Your task to perform on an android device: Go to location settings Image 0: 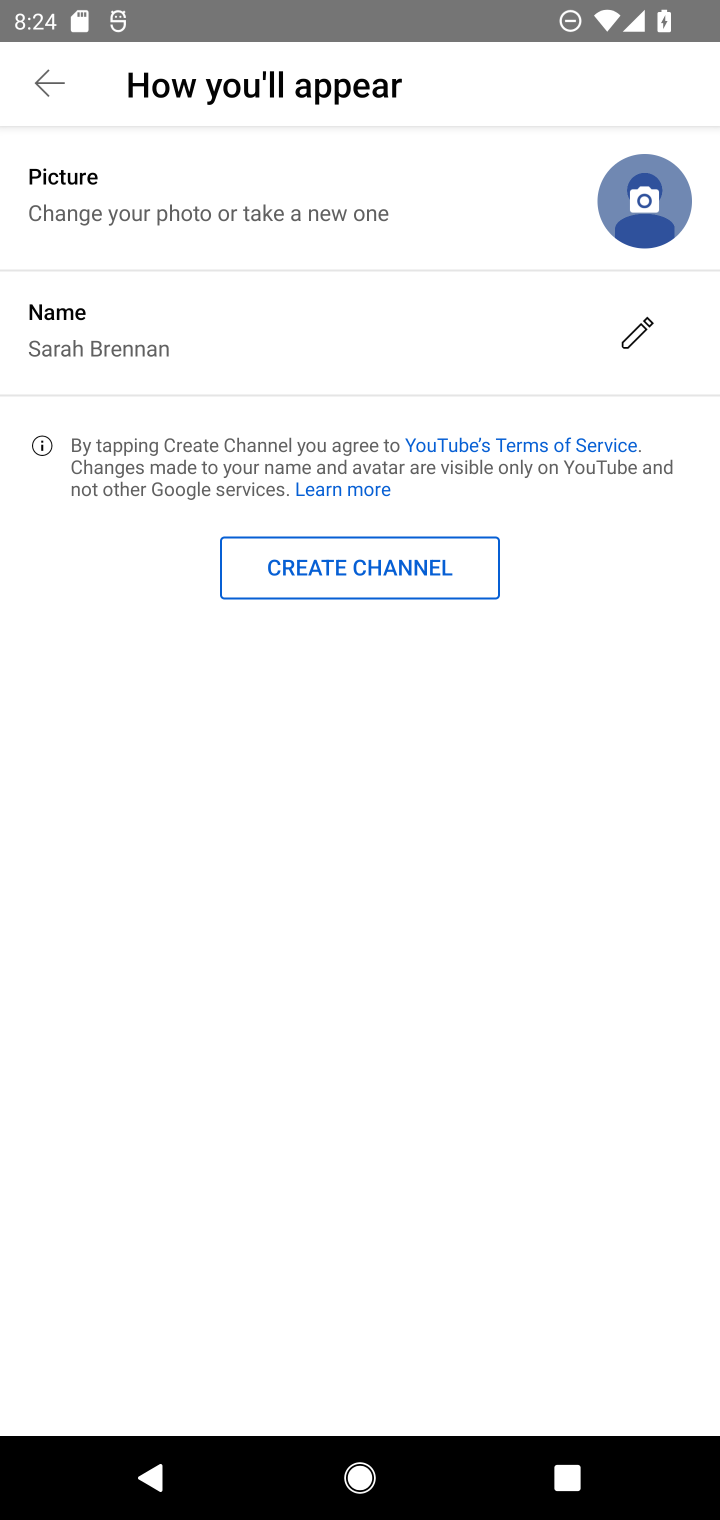
Step 0: press home button
Your task to perform on an android device: Go to location settings Image 1: 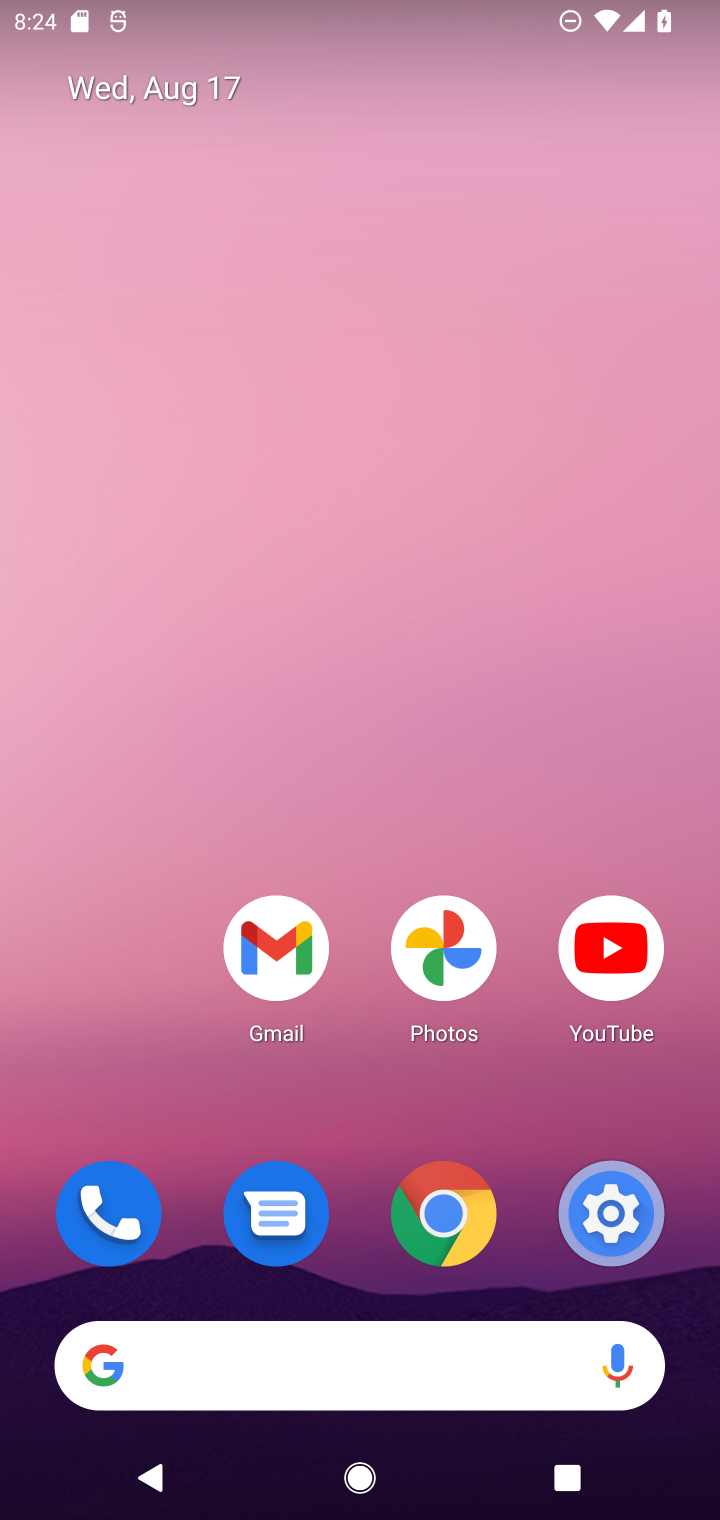
Step 1: click (632, 1237)
Your task to perform on an android device: Go to location settings Image 2: 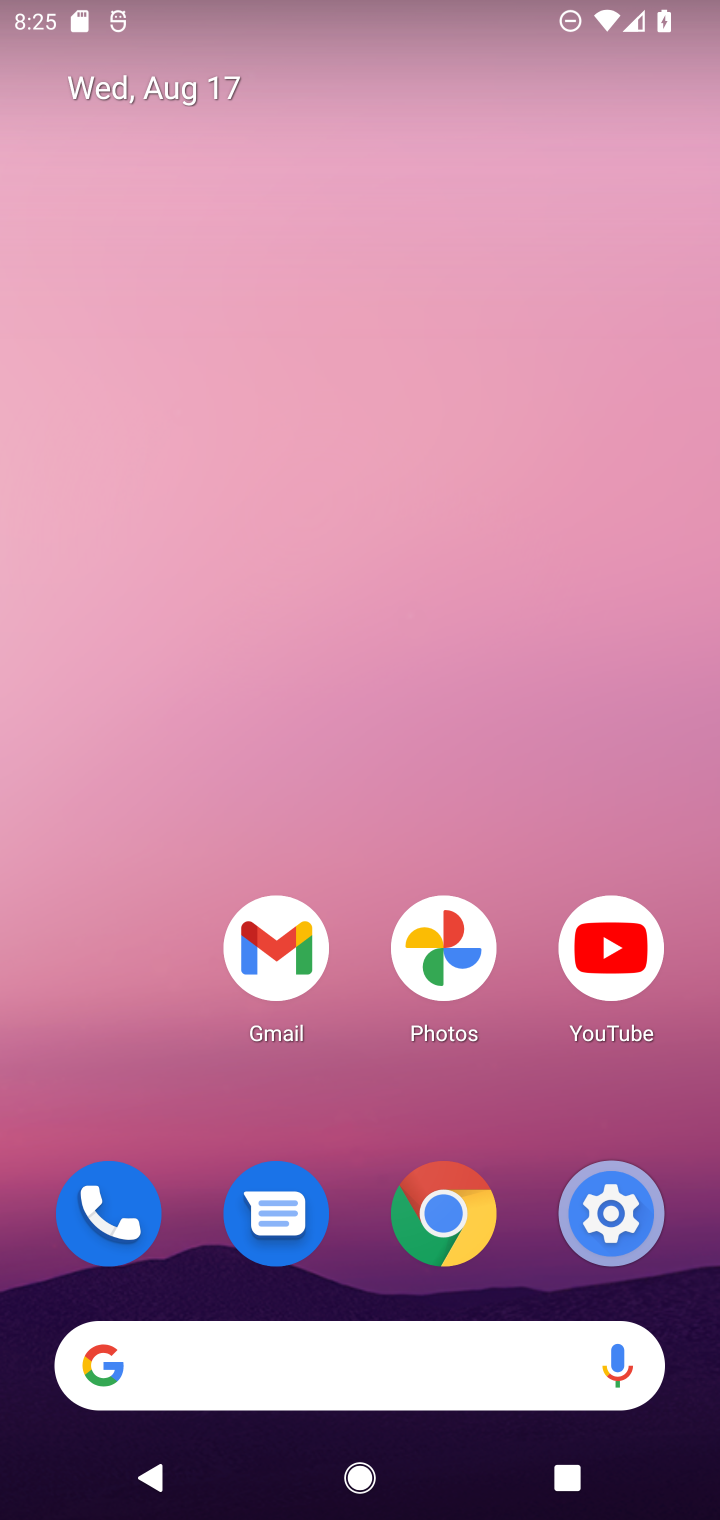
Step 2: click (631, 1208)
Your task to perform on an android device: Go to location settings Image 3: 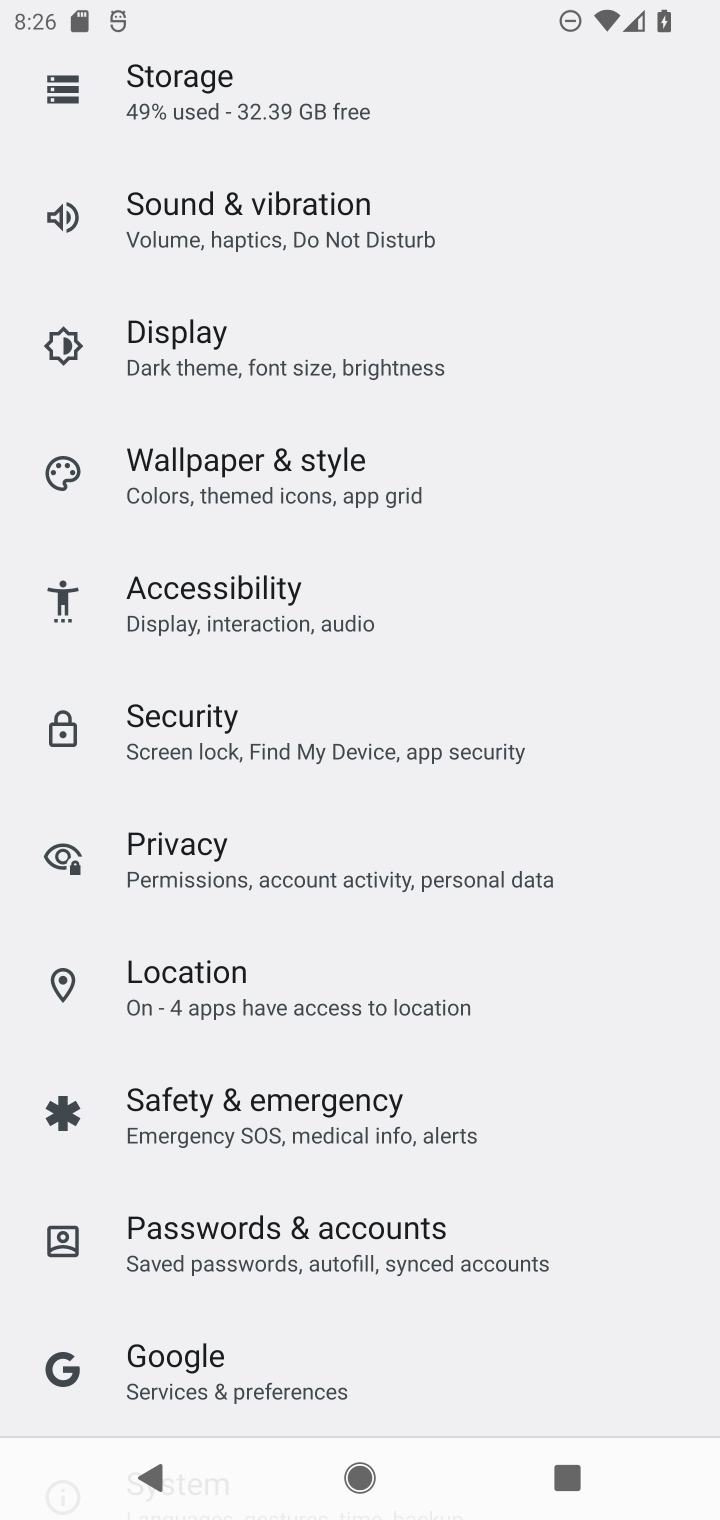
Step 3: click (318, 952)
Your task to perform on an android device: Go to location settings Image 4: 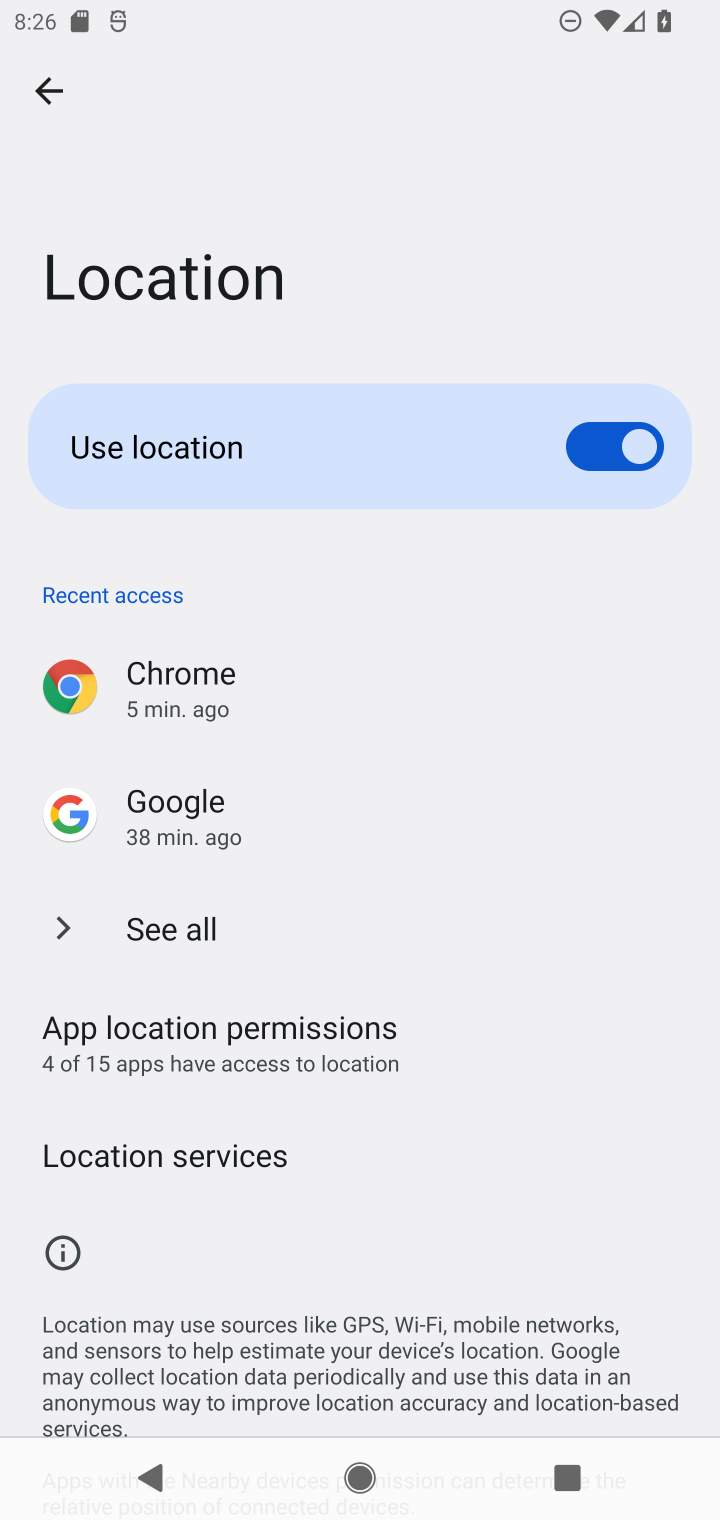
Step 4: task complete